Your task to perform on an android device: toggle sleep mode Image 0: 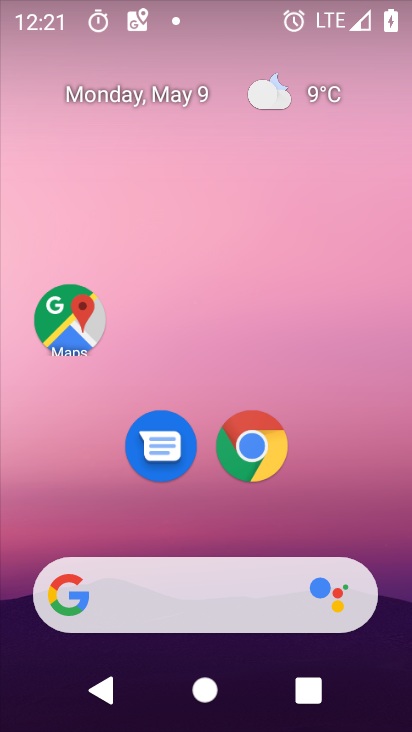
Step 0: drag from (360, 537) to (322, 14)
Your task to perform on an android device: toggle sleep mode Image 1: 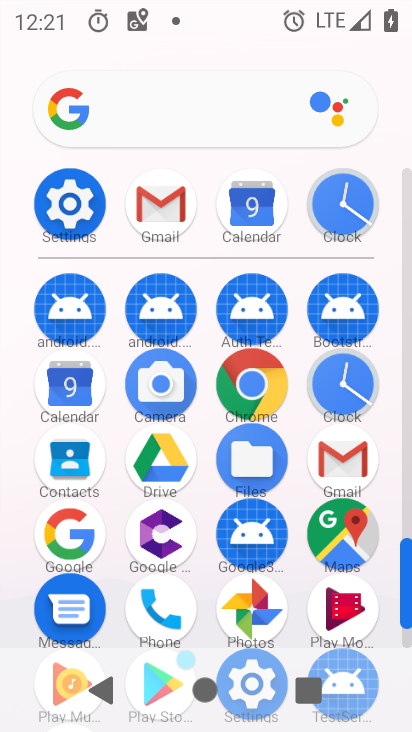
Step 1: click (78, 202)
Your task to perform on an android device: toggle sleep mode Image 2: 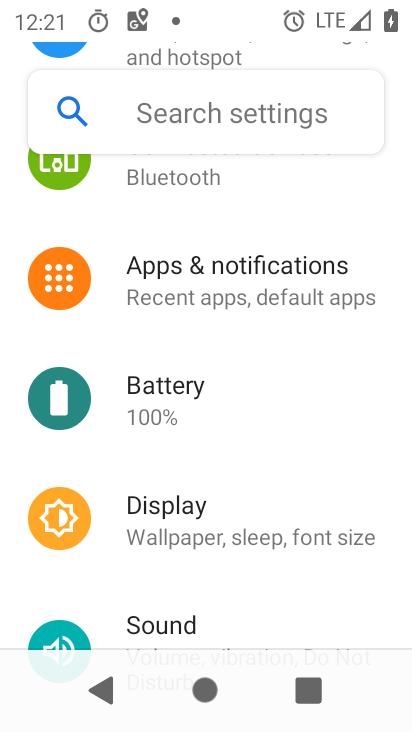
Step 2: click (193, 543)
Your task to perform on an android device: toggle sleep mode Image 3: 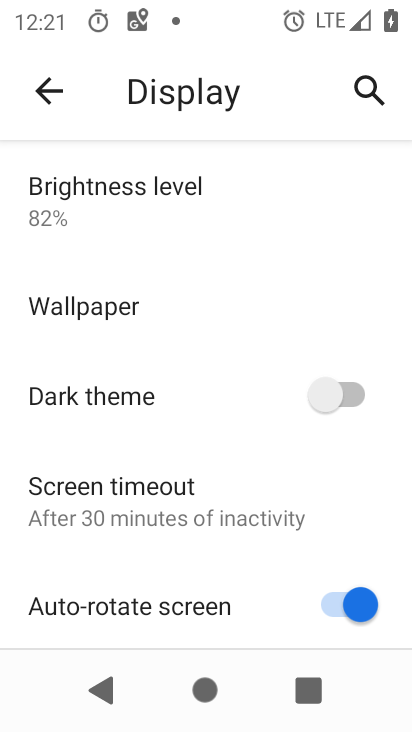
Step 3: drag from (182, 528) to (180, 215)
Your task to perform on an android device: toggle sleep mode Image 4: 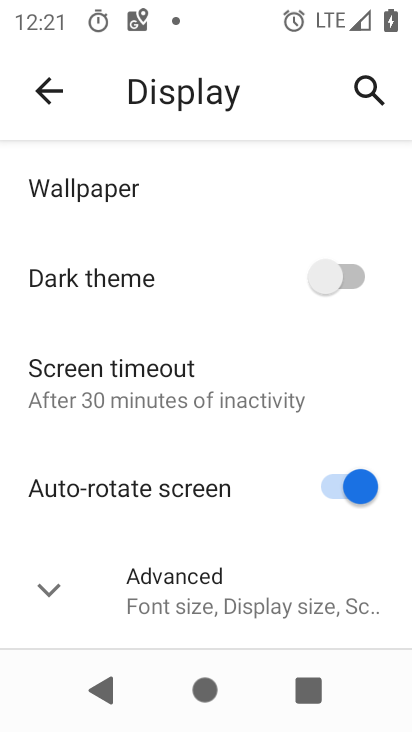
Step 4: click (29, 601)
Your task to perform on an android device: toggle sleep mode Image 5: 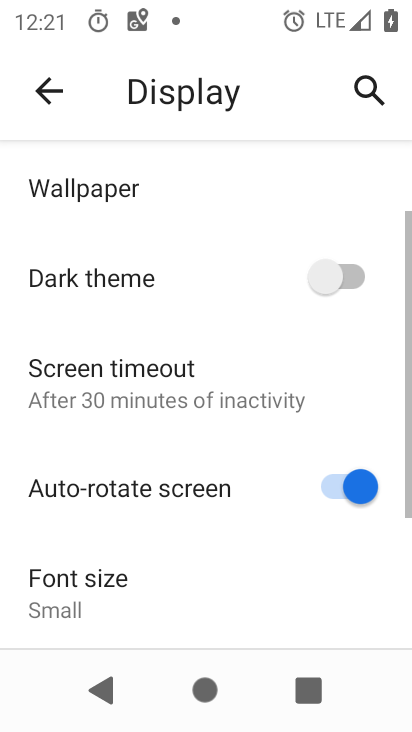
Step 5: task complete